Your task to perform on an android device: Turn off the flashlight Image 0: 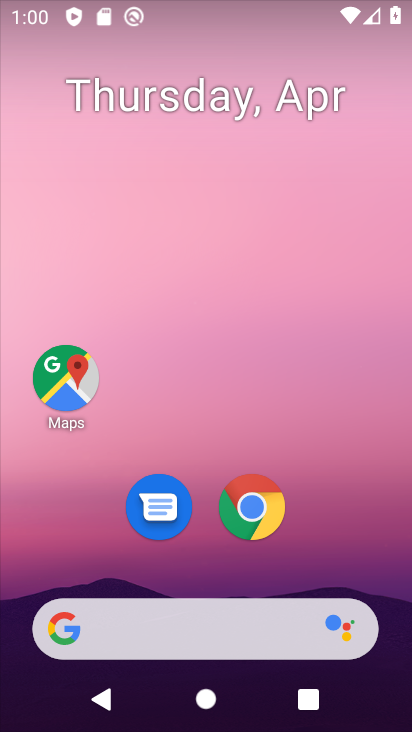
Step 0: drag from (239, 31) to (255, 441)
Your task to perform on an android device: Turn off the flashlight Image 1: 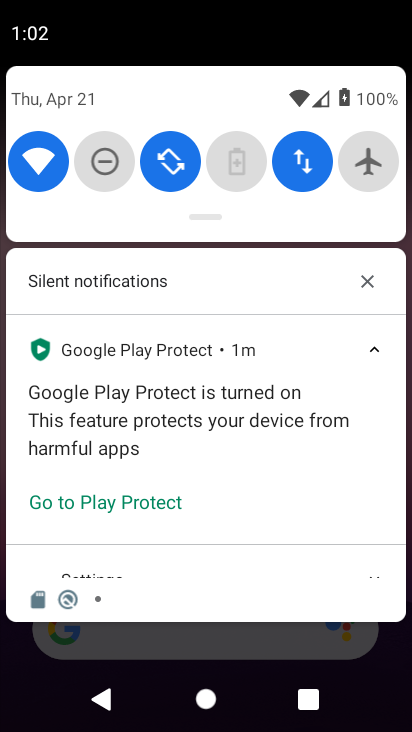
Step 1: task complete